Your task to perform on an android device: change text size in settings app Image 0: 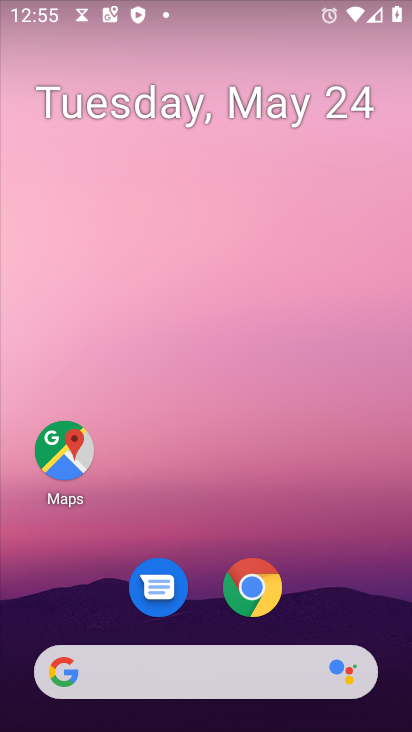
Step 0: drag from (242, 671) to (197, 172)
Your task to perform on an android device: change text size in settings app Image 1: 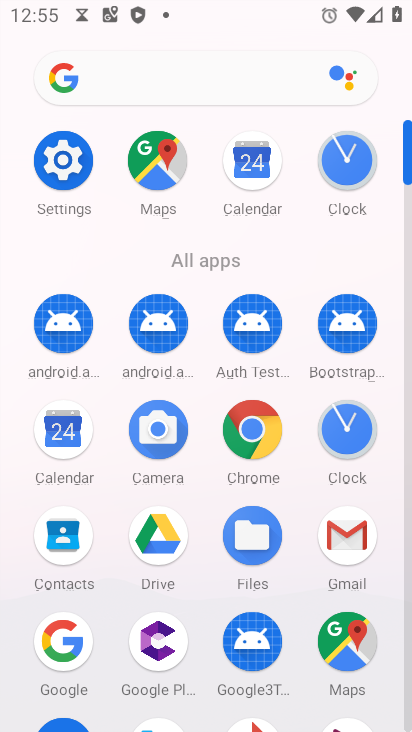
Step 1: click (74, 181)
Your task to perform on an android device: change text size in settings app Image 2: 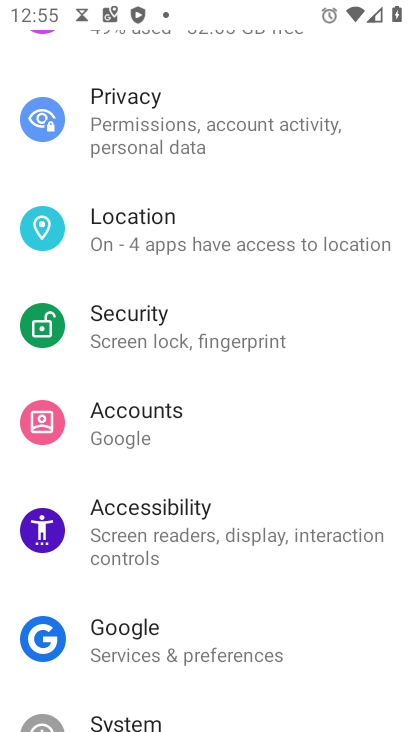
Step 2: drag from (171, 169) to (170, 688)
Your task to perform on an android device: change text size in settings app Image 3: 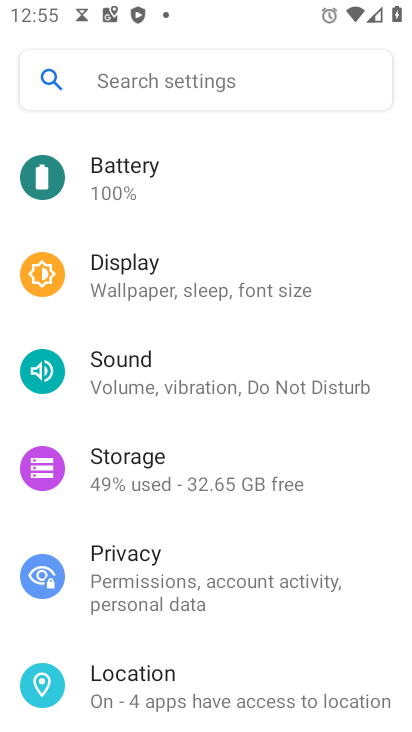
Step 3: drag from (200, 178) to (189, 519)
Your task to perform on an android device: change text size in settings app Image 4: 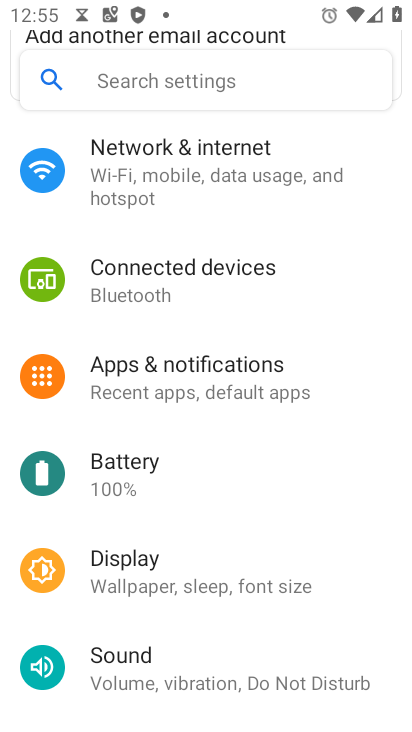
Step 4: click (122, 561)
Your task to perform on an android device: change text size in settings app Image 5: 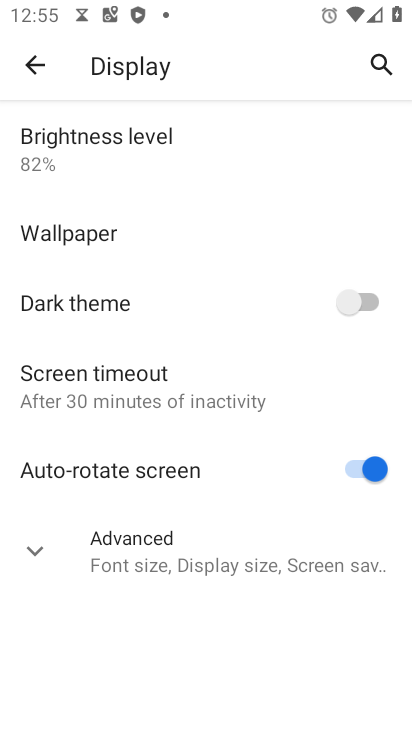
Step 5: click (184, 548)
Your task to perform on an android device: change text size in settings app Image 6: 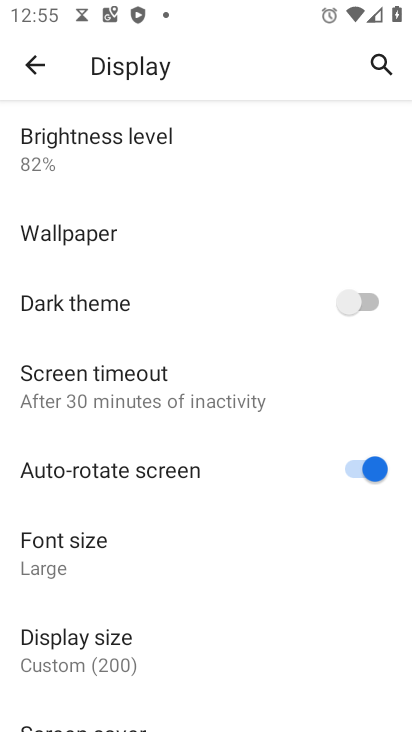
Step 6: click (95, 573)
Your task to perform on an android device: change text size in settings app Image 7: 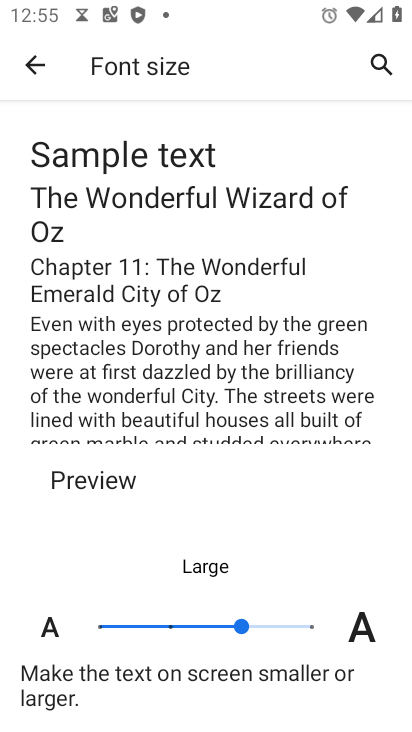
Step 7: click (174, 627)
Your task to perform on an android device: change text size in settings app Image 8: 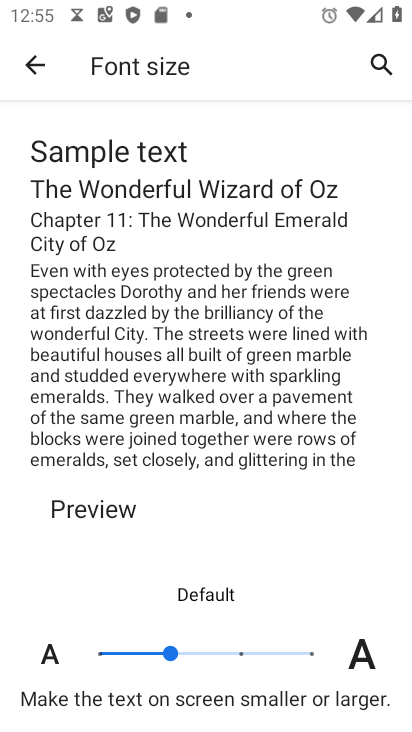
Step 8: task complete